Your task to perform on an android device: Set an alarm for 9am Image 0: 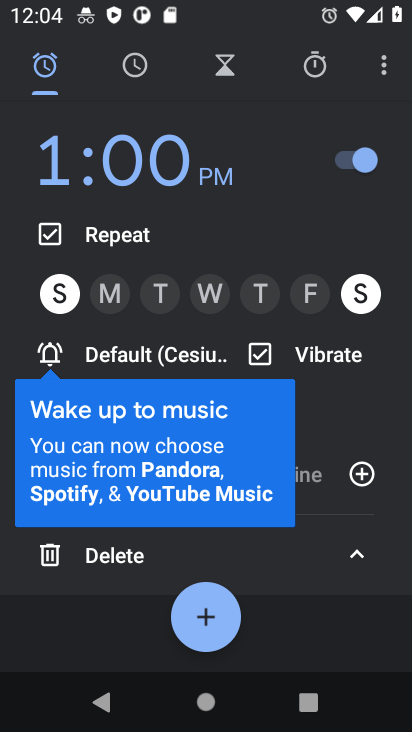
Step 0: click (69, 182)
Your task to perform on an android device: Set an alarm for 9am Image 1: 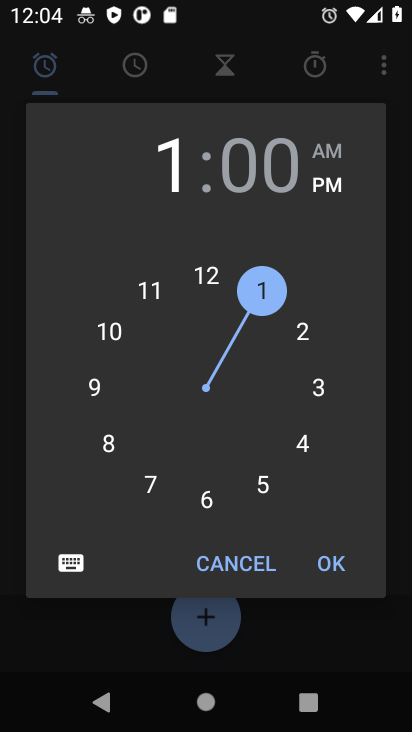
Step 1: click (97, 384)
Your task to perform on an android device: Set an alarm for 9am Image 2: 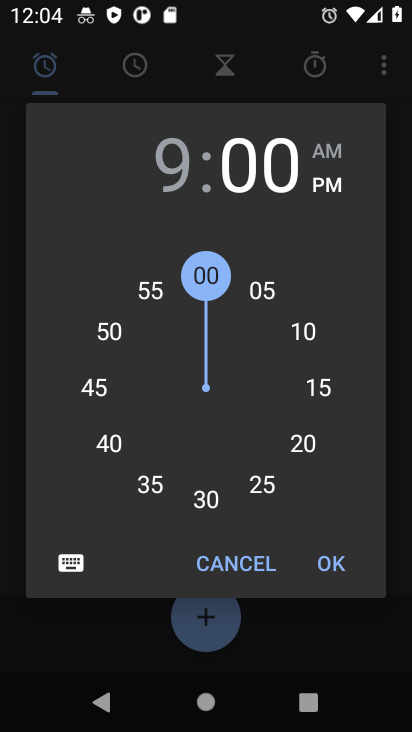
Step 2: click (324, 152)
Your task to perform on an android device: Set an alarm for 9am Image 3: 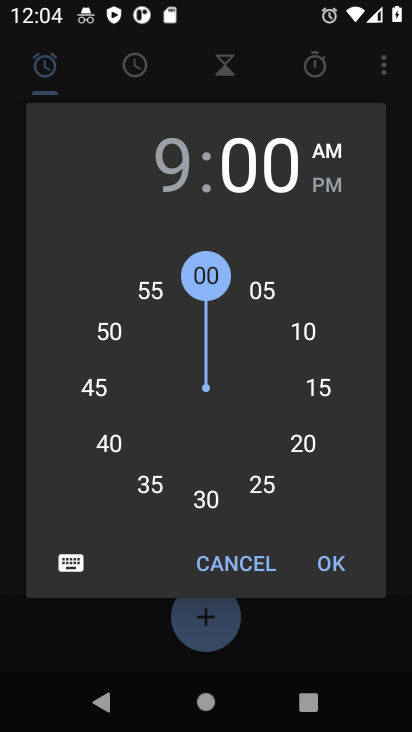
Step 3: click (331, 561)
Your task to perform on an android device: Set an alarm for 9am Image 4: 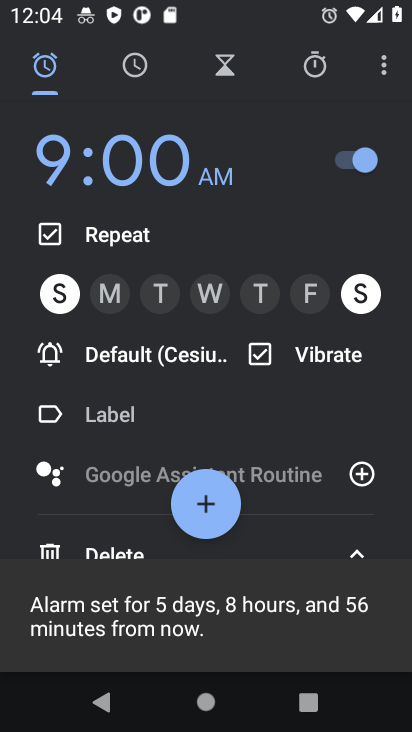
Step 4: task complete